Your task to perform on an android device: manage bookmarks in the chrome app Image 0: 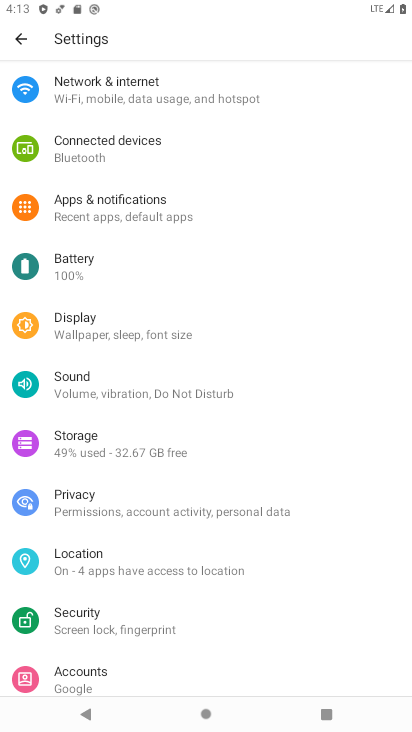
Step 0: drag from (99, 256) to (165, 509)
Your task to perform on an android device: manage bookmarks in the chrome app Image 1: 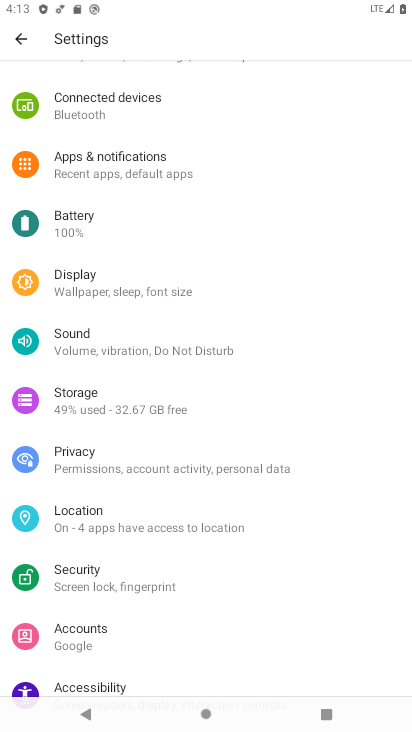
Step 1: press back button
Your task to perform on an android device: manage bookmarks in the chrome app Image 2: 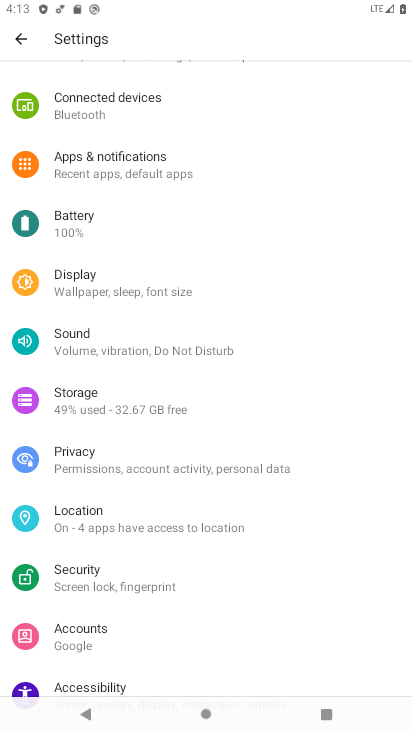
Step 2: press back button
Your task to perform on an android device: manage bookmarks in the chrome app Image 3: 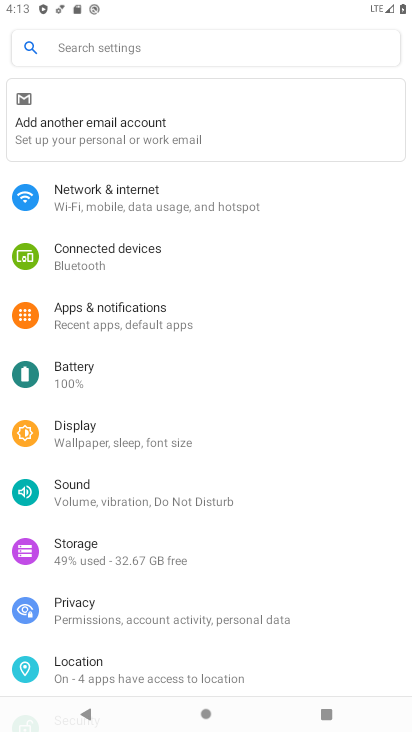
Step 3: press back button
Your task to perform on an android device: manage bookmarks in the chrome app Image 4: 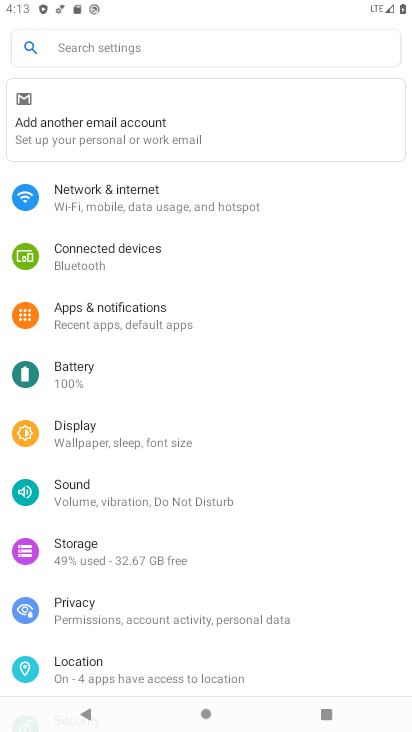
Step 4: press back button
Your task to perform on an android device: manage bookmarks in the chrome app Image 5: 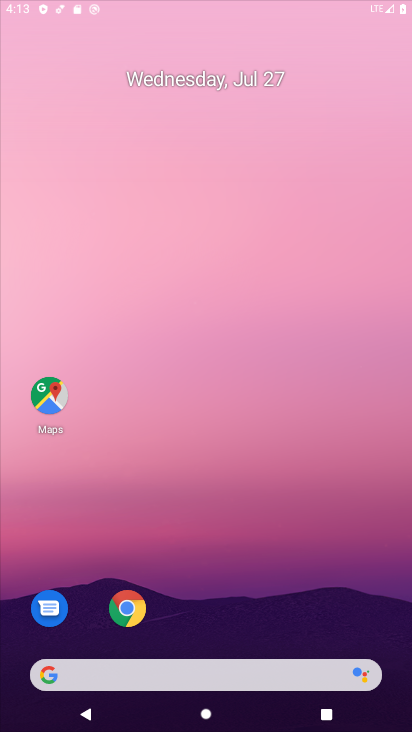
Step 5: press back button
Your task to perform on an android device: manage bookmarks in the chrome app Image 6: 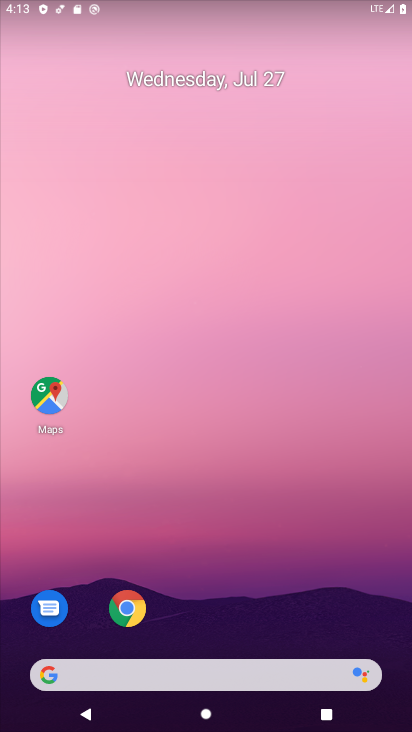
Step 6: press home button
Your task to perform on an android device: manage bookmarks in the chrome app Image 7: 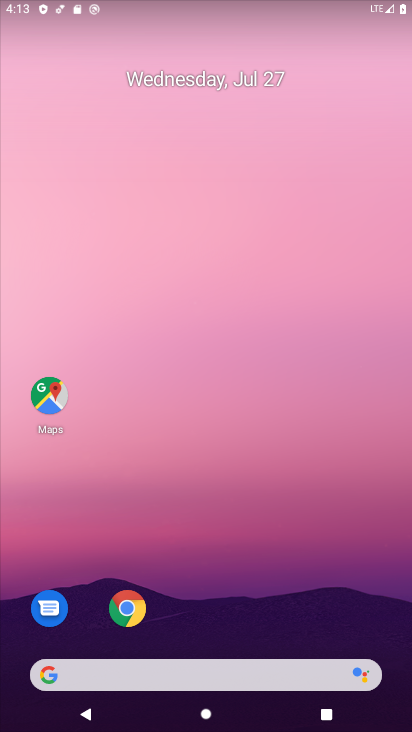
Step 7: drag from (195, 533) to (195, 233)
Your task to perform on an android device: manage bookmarks in the chrome app Image 8: 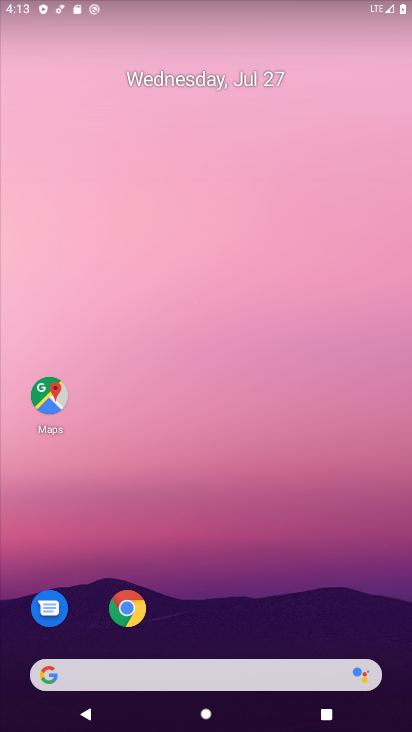
Step 8: drag from (221, 620) to (221, 494)
Your task to perform on an android device: manage bookmarks in the chrome app Image 9: 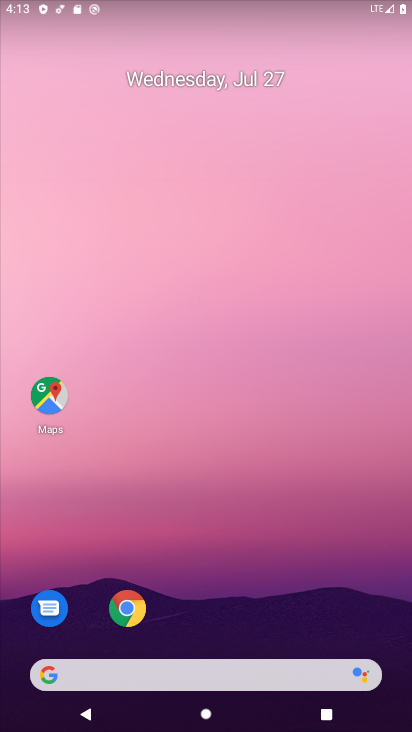
Step 9: drag from (241, 673) to (201, 330)
Your task to perform on an android device: manage bookmarks in the chrome app Image 10: 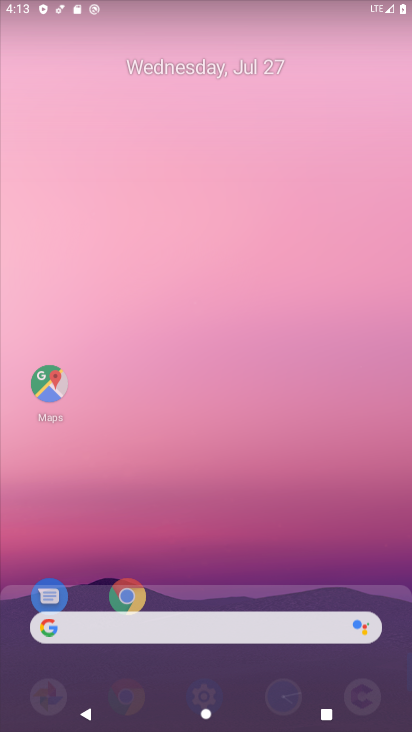
Step 10: drag from (204, 559) to (182, 243)
Your task to perform on an android device: manage bookmarks in the chrome app Image 11: 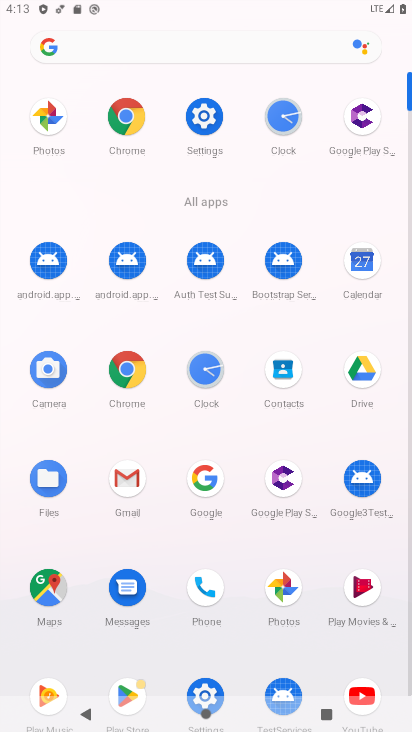
Step 11: drag from (197, 562) to (205, 248)
Your task to perform on an android device: manage bookmarks in the chrome app Image 12: 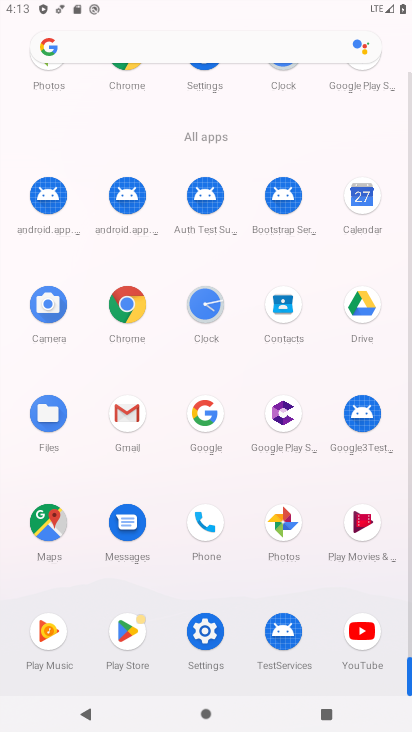
Step 12: click (137, 307)
Your task to perform on an android device: manage bookmarks in the chrome app Image 13: 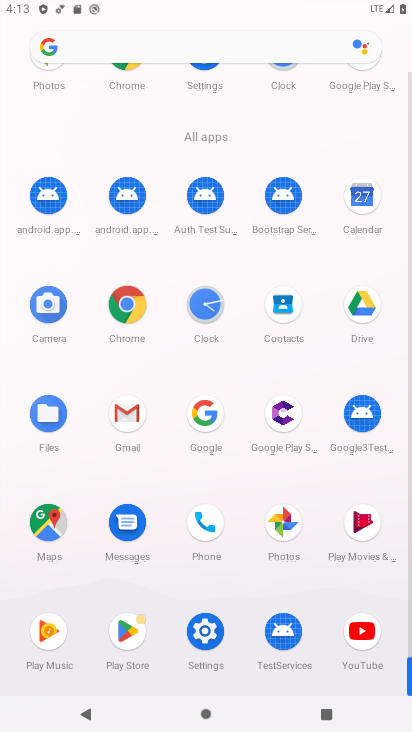
Step 13: click (136, 306)
Your task to perform on an android device: manage bookmarks in the chrome app Image 14: 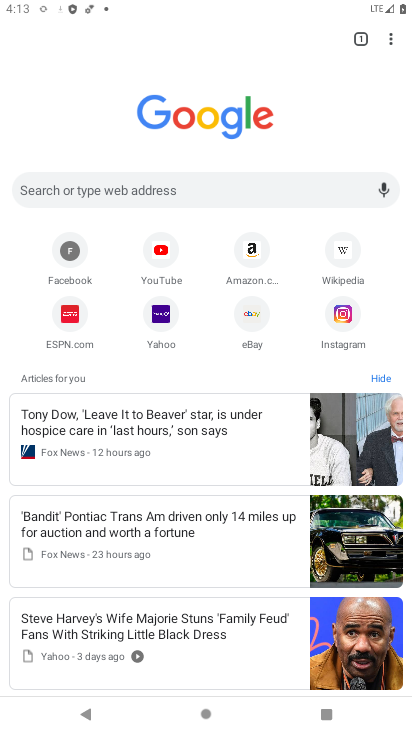
Step 14: drag from (395, 40) to (254, 140)
Your task to perform on an android device: manage bookmarks in the chrome app Image 15: 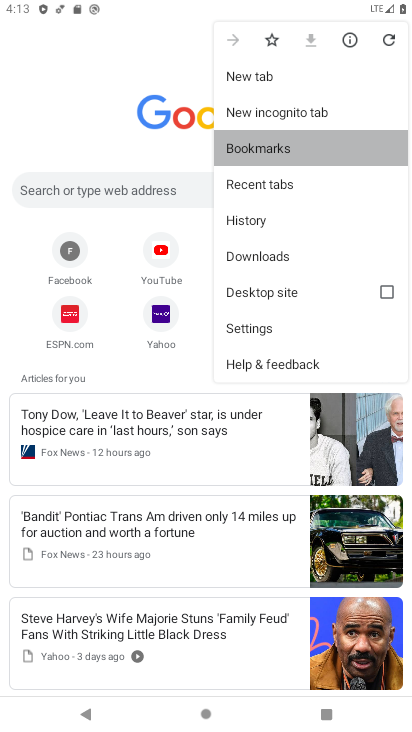
Step 15: click (254, 140)
Your task to perform on an android device: manage bookmarks in the chrome app Image 16: 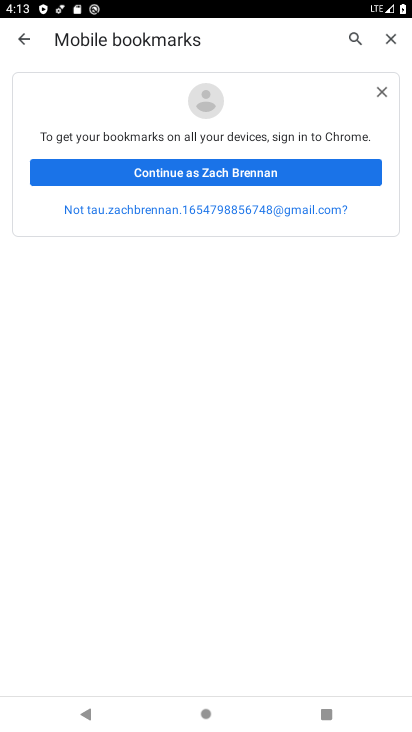
Step 16: click (382, 74)
Your task to perform on an android device: manage bookmarks in the chrome app Image 17: 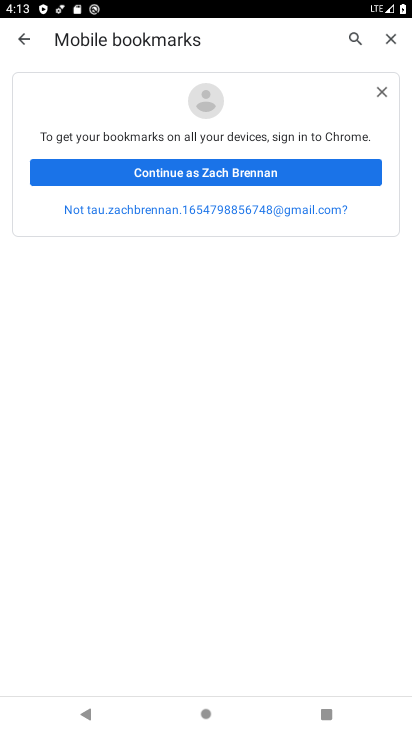
Step 17: click (383, 73)
Your task to perform on an android device: manage bookmarks in the chrome app Image 18: 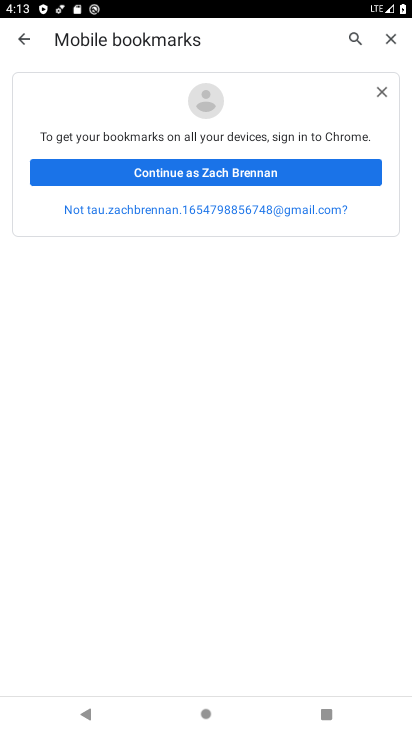
Step 18: click (377, 95)
Your task to perform on an android device: manage bookmarks in the chrome app Image 19: 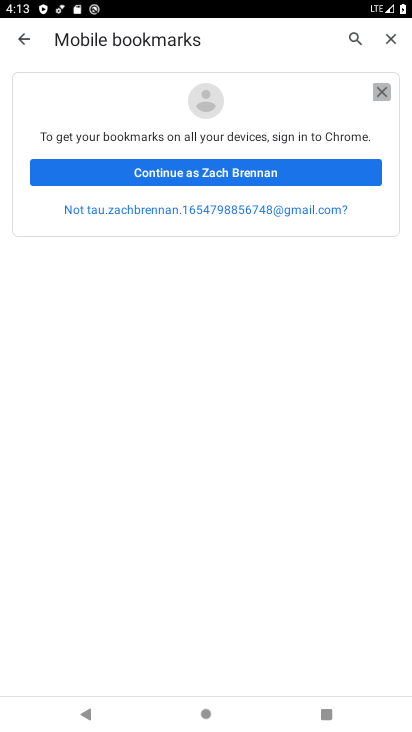
Step 19: click (377, 96)
Your task to perform on an android device: manage bookmarks in the chrome app Image 20: 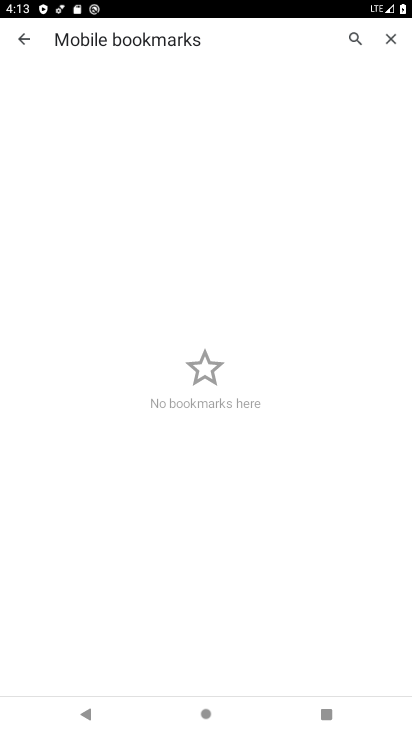
Step 20: task complete